Your task to perform on an android device: toggle airplane mode Image 0: 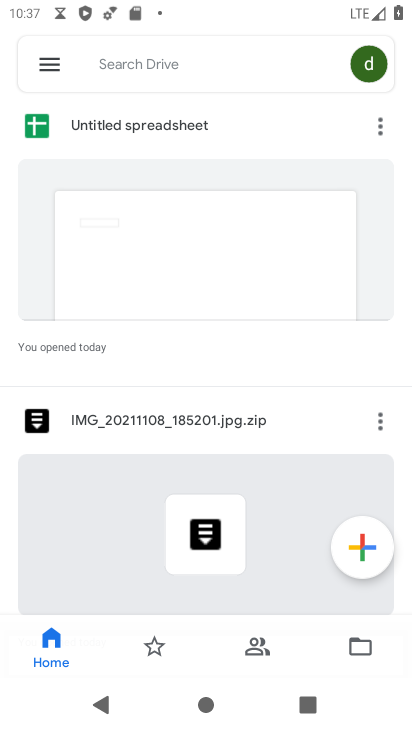
Step 0: press home button
Your task to perform on an android device: toggle airplane mode Image 1: 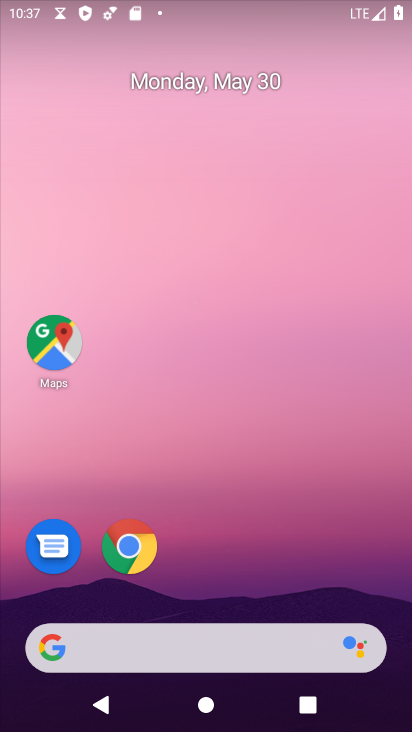
Step 1: drag from (189, 10) to (223, 537)
Your task to perform on an android device: toggle airplane mode Image 2: 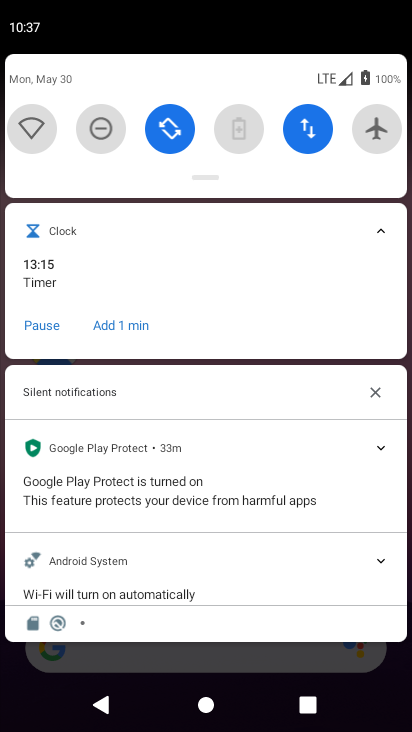
Step 2: click (386, 120)
Your task to perform on an android device: toggle airplane mode Image 3: 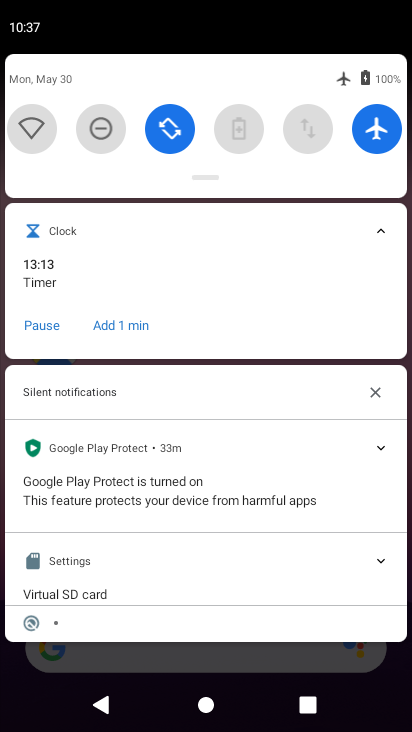
Step 3: task complete